Your task to perform on an android device: Is it going to rain this weekend? Image 0: 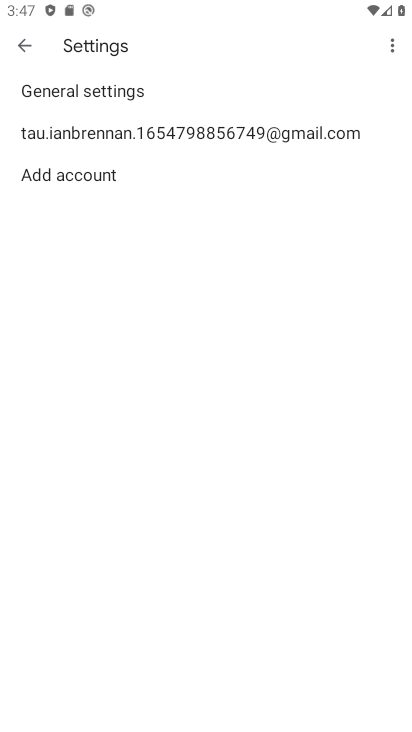
Step 0: press home button
Your task to perform on an android device: Is it going to rain this weekend? Image 1: 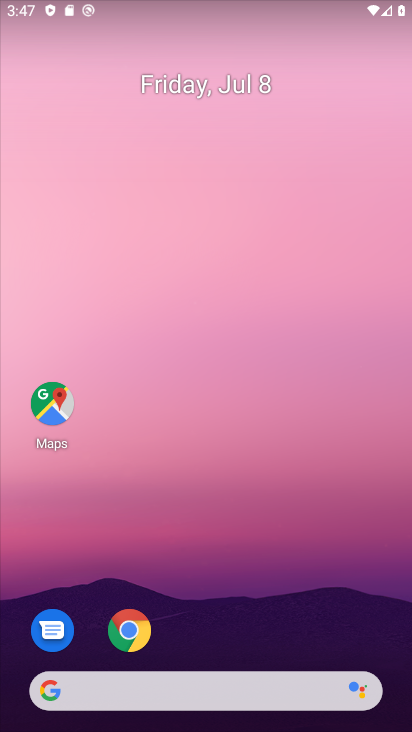
Step 1: click (132, 692)
Your task to perform on an android device: Is it going to rain this weekend? Image 2: 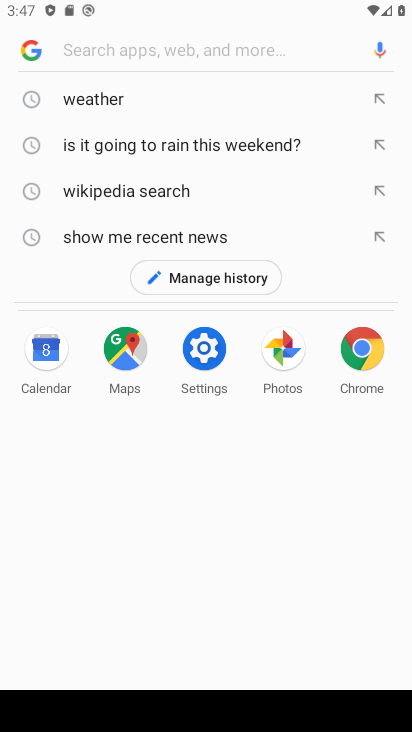
Step 2: type "Is it going to rain this weekend?"
Your task to perform on an android device: Is it going to rain this weekend? Image 3: 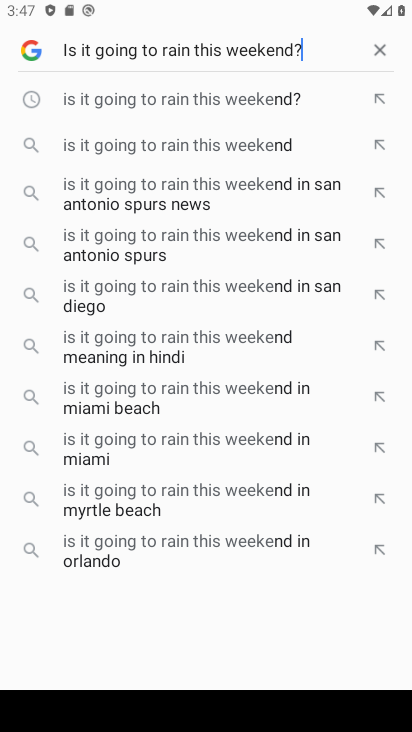
Step 3: type ""
Your task to perform on an android device: Is it going to rain this weekend? Image 4: 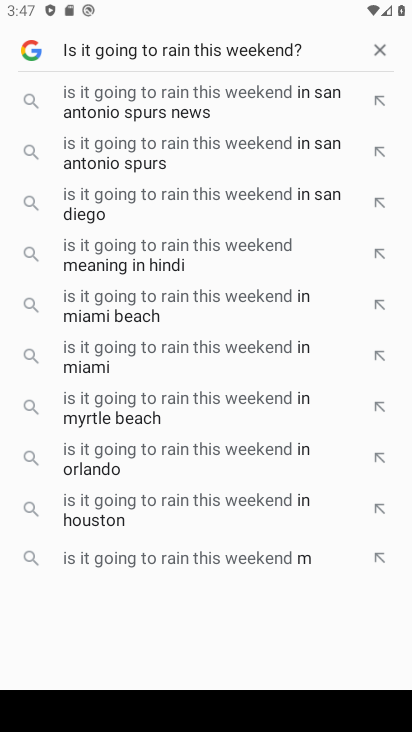
Step 4: type ""
Your task to perform on an android device: Is it going to rain this weekend? Image 5: 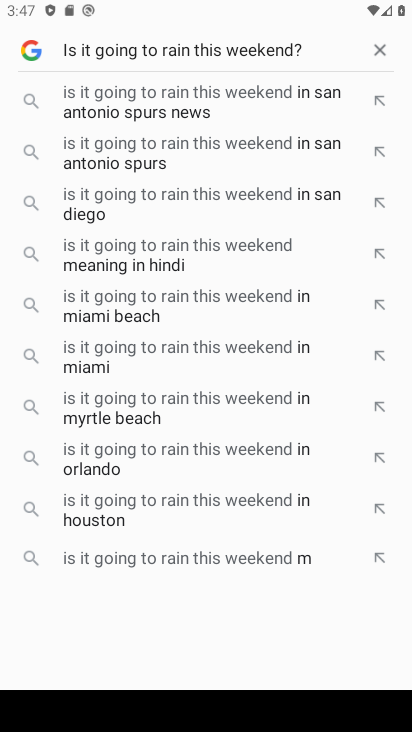
Step 5: type ""
Your task to perform on an android device: Is it going to rain this weekend? Image 6: 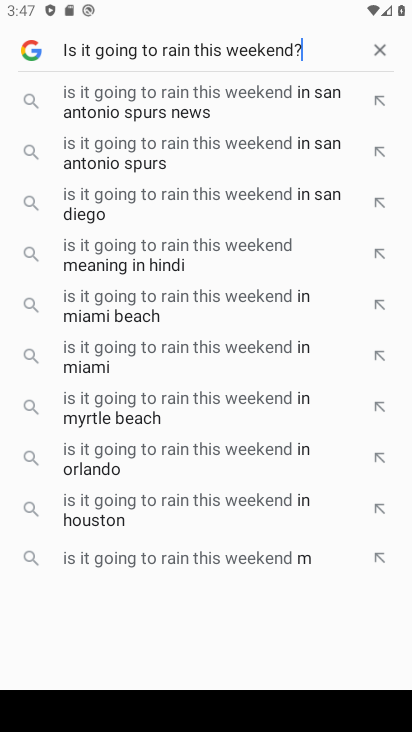
Step 6: task complete